Your task to perform on an android device: Search for vegetarian restaurants on Maps Image 0: 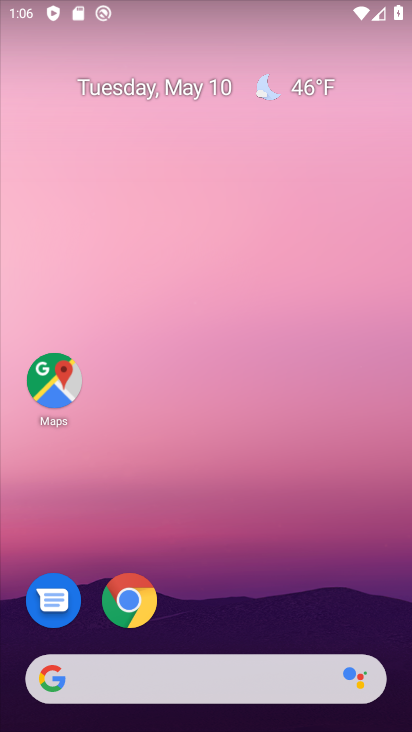
Step 0: click (51, 387)
Your task to perform on an android device: Search for vegetarian restaurants on Maps Image 1: 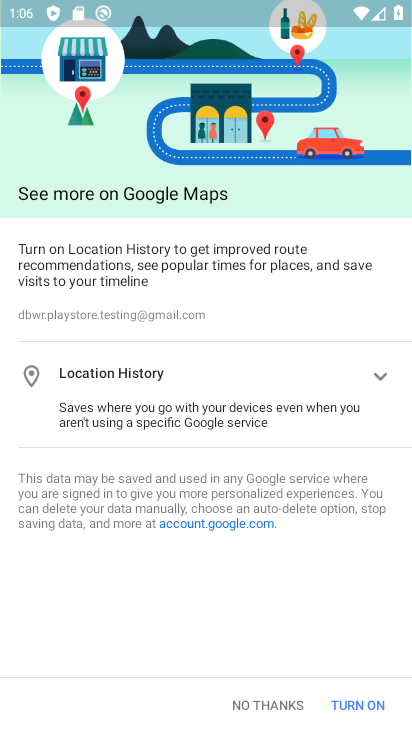
Step 1: click (265, 701)
Your task to perform on an android device: Search for vegetarian restaurants on Maps Image 2: 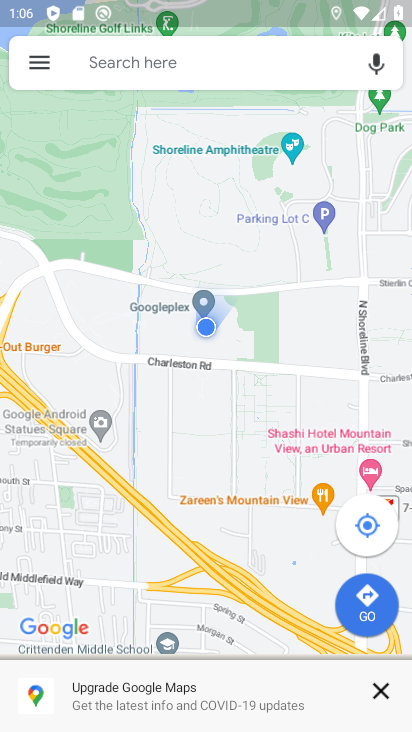
Step 2: click (199, 64)
Your task to perform on an android device: Search for vegetarian restaurants on Maps Image 3: 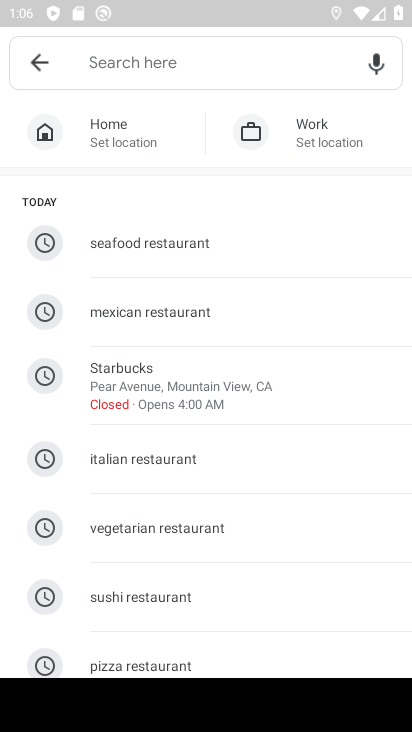
Step 3: click (154, 528)
Your task to perform on an android device: Search for vegetarian restaurants on Maps Image 4: 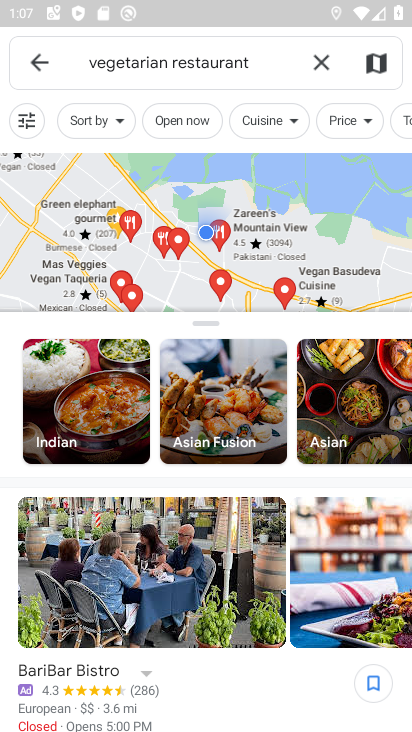
Step 4: task complete